Your task to perform on an android device: Go to battery settings Image 0: 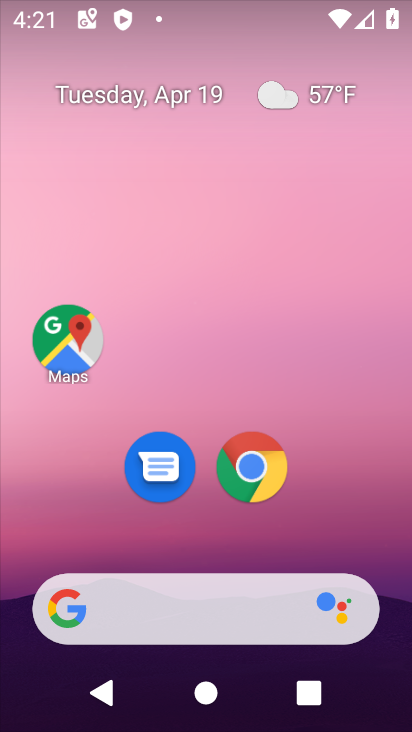
Step 0: drag from (214, 649) to (191, 183)
Your task to perform on an android device: Go to battery settings Image 1: 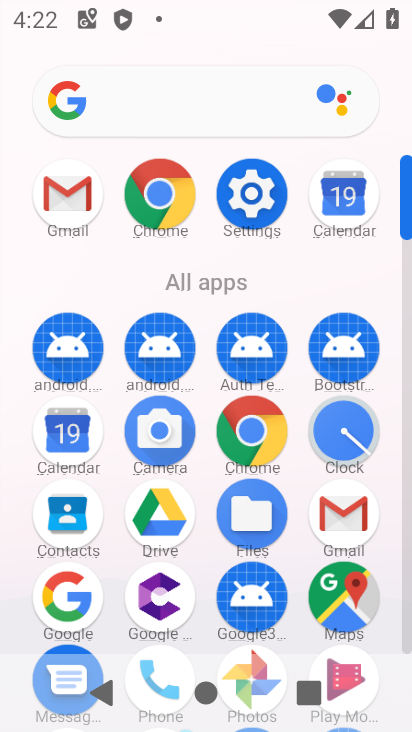
Step 1: click (252, 220)
Your task to perform on an android device: Go to battery settings Image 2: 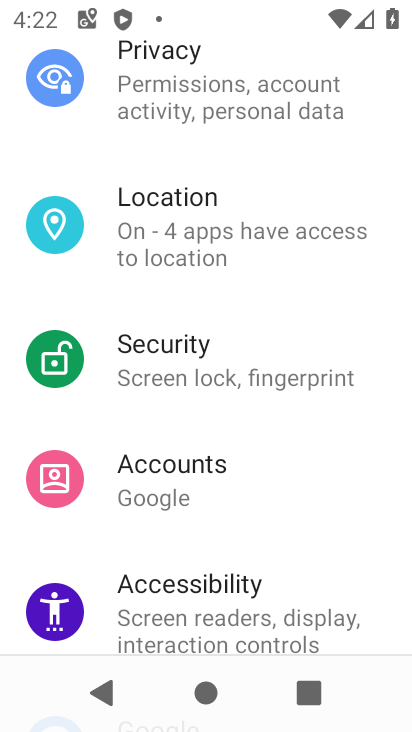
Step 2: drag from (243, 448) to (266, 528)
Your task to perform on an android device: Go to battery settings Image 3: 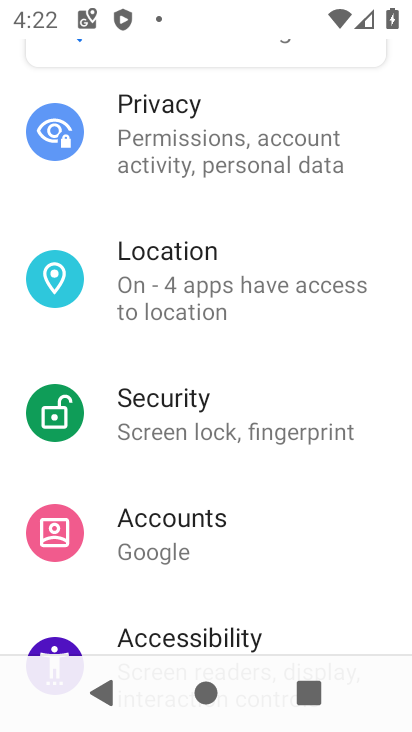
Step 3: drag from (179, 325) to (164, 204)
Your task to perform on an android device: Go to battery settings Image 4: 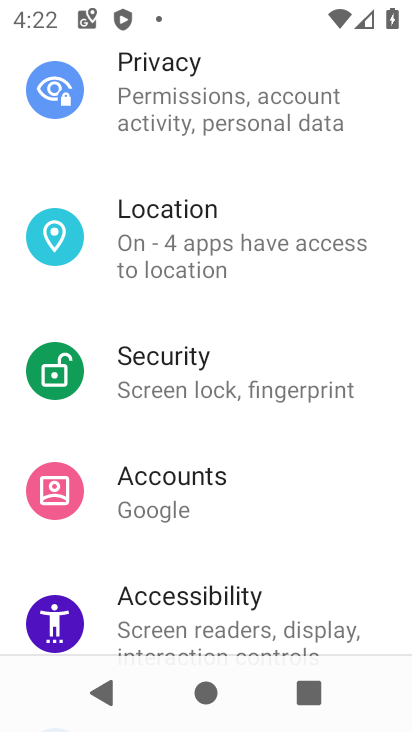
Step 4: drag from (188, 428) to (170, 144)
Your task to perform on an android device: Go to battery settings Image 5: 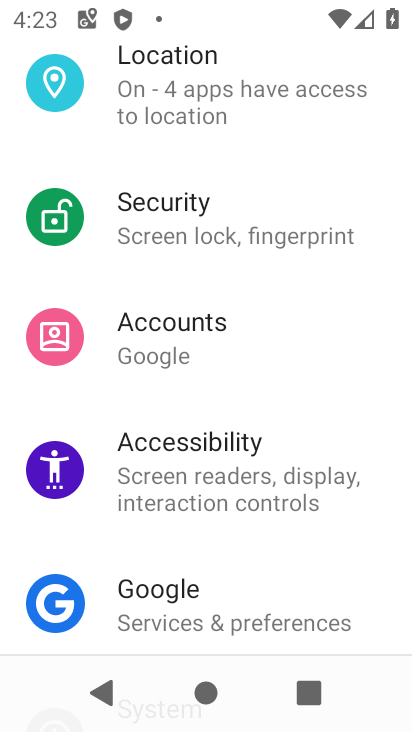
Step 5: drag from (174, 276) to (228, 618)
Your task to perform on an android device: Go to battery settings Image 6: 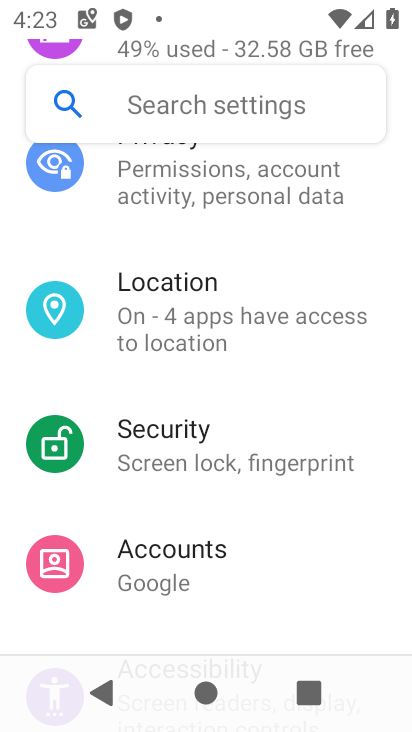
Step 6: drag from (187, 494) to (109, 24)
Your task to perform on an android device: Go to battery settings Image 7: 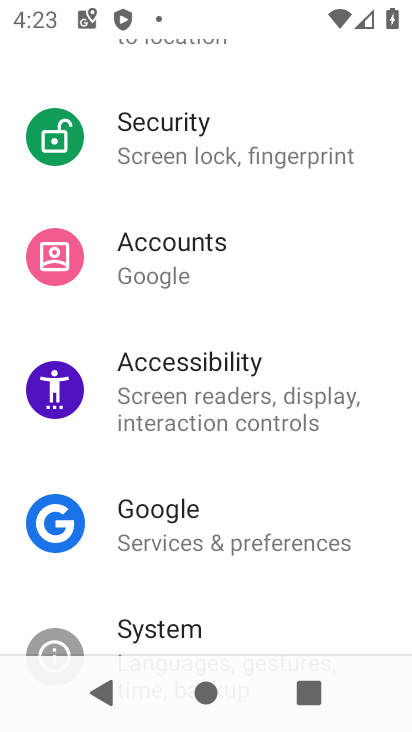
Step 7: drag from (201, 503) to (183, 222)
Your task to perform on an android device: Go to battery settings Image 8: 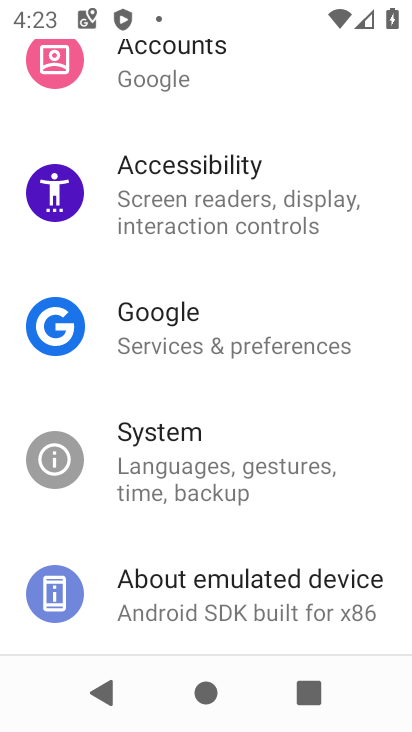
Step 8: drag from (213, 323) to (193, 727)
Your task to perform on an android device: Go to battery settings Image 9: 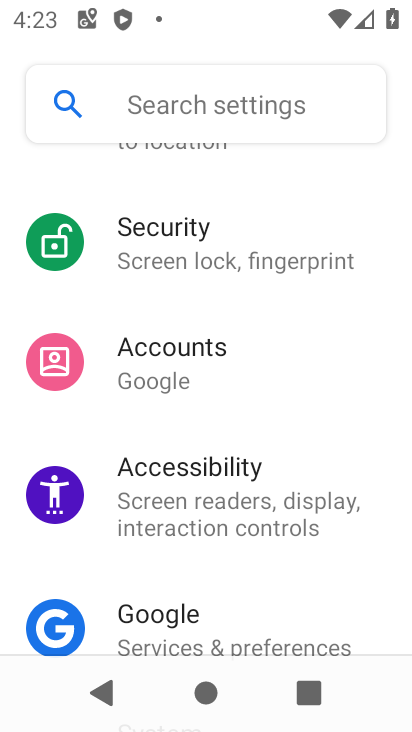
Step 9: drag from (209, 557) to (170, 722)
Your task to perform on an android device: Go to battery settings Image 10: 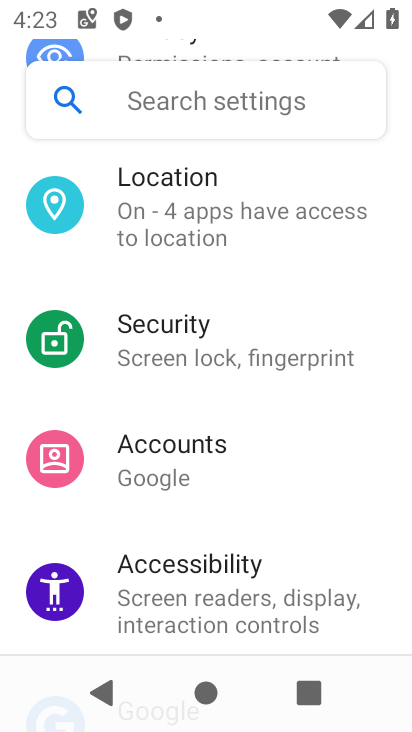
Step 10: drag from (187, 598) to (196, 690)
Your task to perform on an android device: Go to battery settings Image 11: 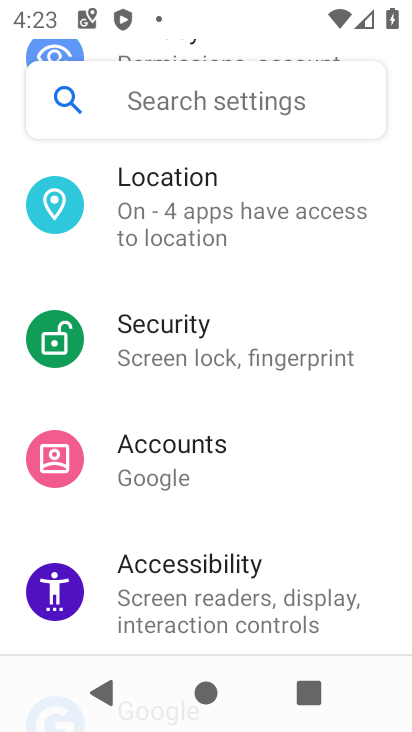
Step 11: drag from (223, 240) to (244, 686)
Your task to perform on an android device: Go to battery settings Image 12: 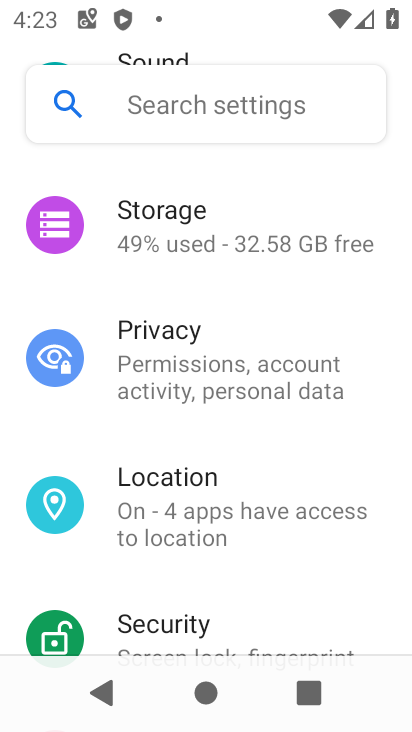
Step 12: drag from (182, 292) to (182, 613)
Your task to perform on an android device: Go to battery settings Image 13: 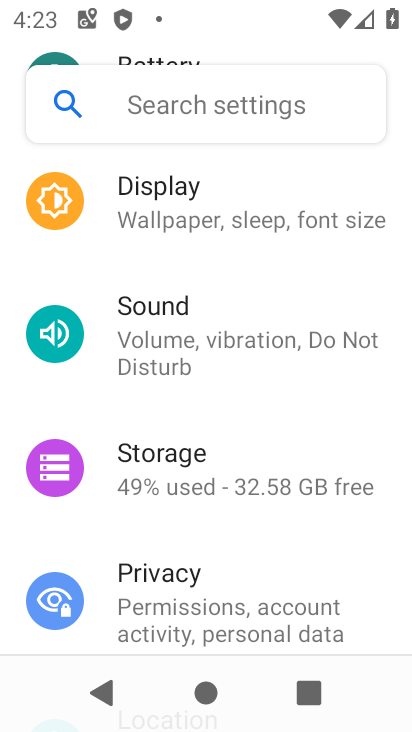
Step 13: drag from (187, 243) to (218, 619)
Your task to perform on an android device: Go to battery settings Image 14: 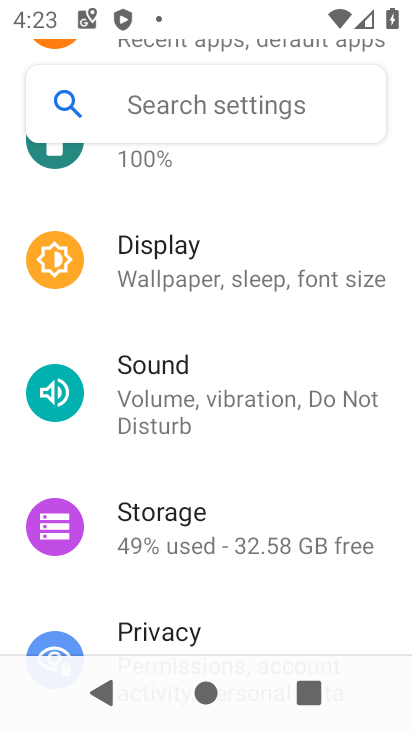
Step 14: click (175, 165)
Your task to perform on an android device: Go to battery settings Image 15: 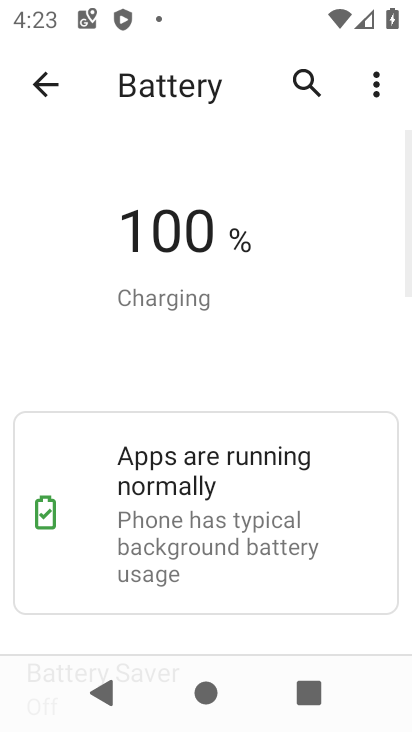
Step 15: task complete